Your task to perform on an android device: turn off picture-in-picture Image 0: 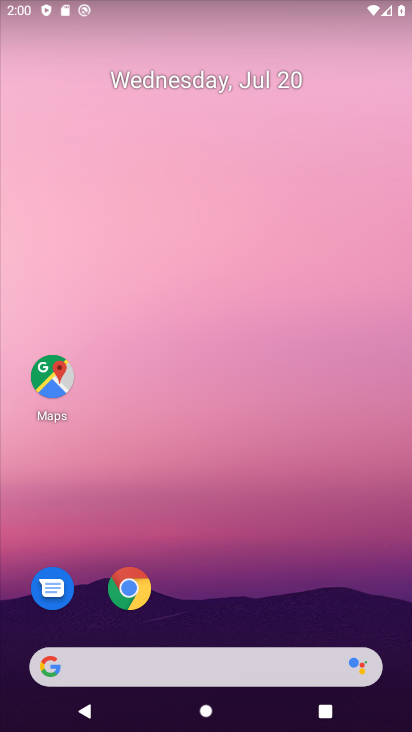
Step 0: click (124, 15)
Your task to perform on an android device: turn off picture-in-picture Image 1: 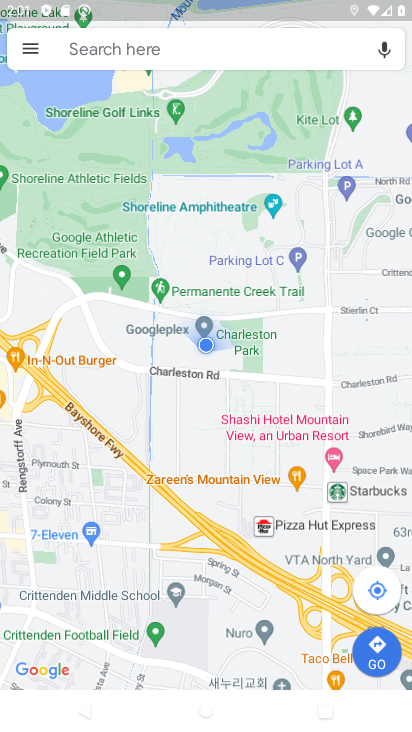
Step 1: press back button
Your task to perform on an android device: turn off picture-in-picture Image 2: 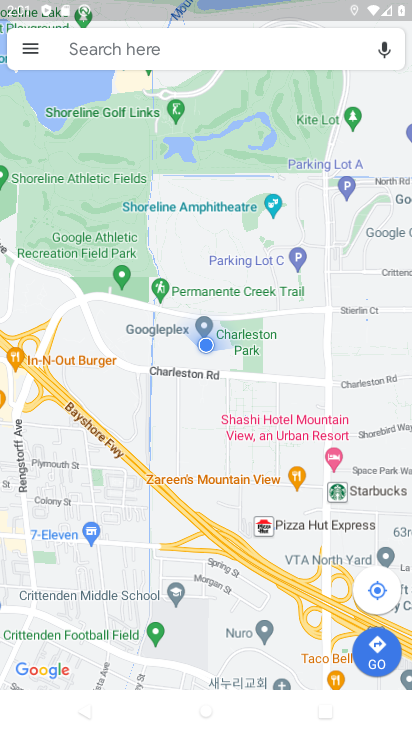
Step 2: press back button
Your task to perform on an android device: turn off picture-in-picture Image 3: 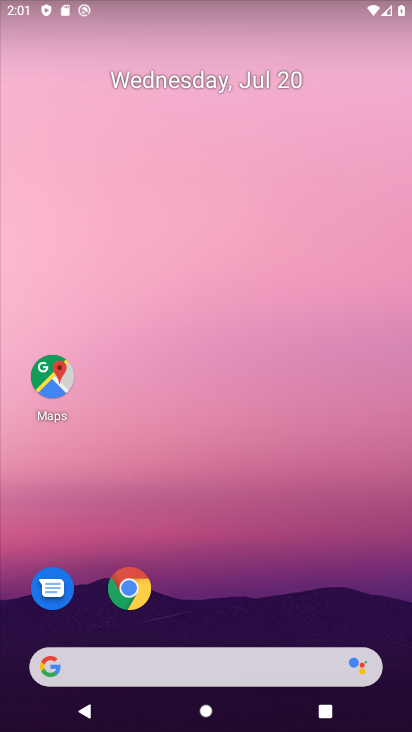
Step 3: drag from (184, 493) to (76, 93)
Your task to perform on an android device: turn off picture-in-picture Image 4: 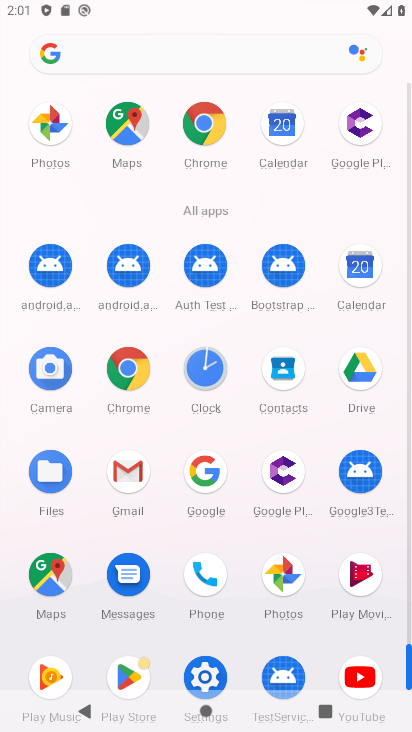
Step 4: click (135, 371)
Your task to perform on an android device: turn off picture-in-picture Image 5: 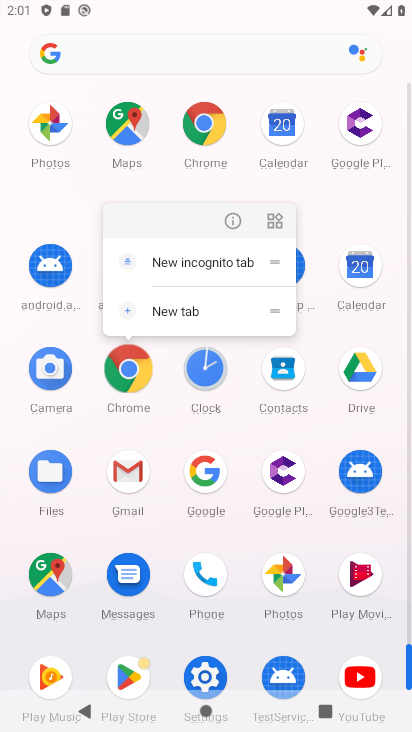
Step 5: click (217, 220)
Your task to perform on an android device: turn off picture-in-picture Image 6: 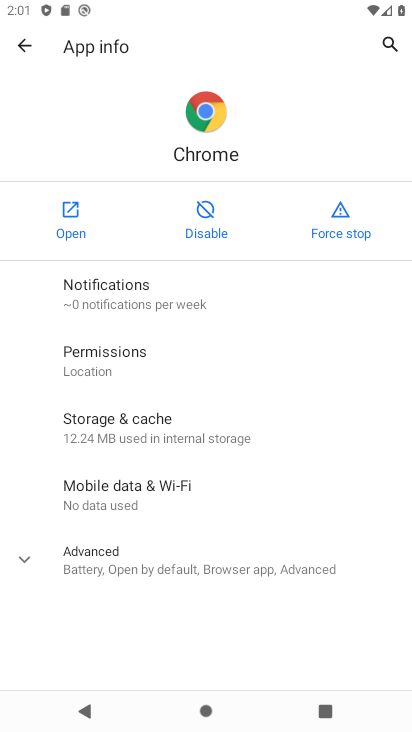
Step 6: click (97, 555)
Your task to perform on an android device: turn off picture-in-picture Image 7: 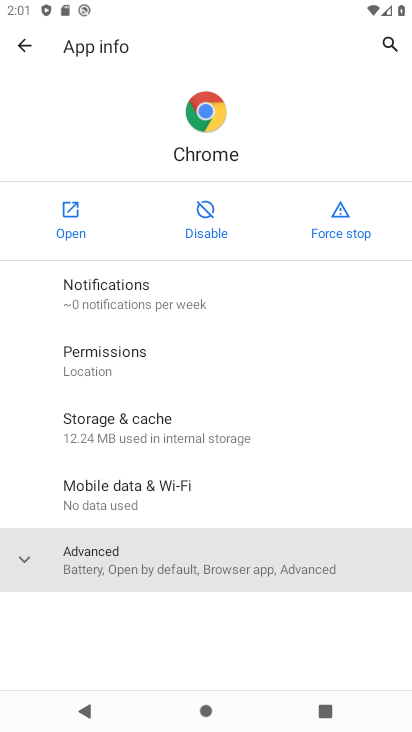
Step 7: click (97, 555)
Your task to perform on an android device: turn off picture-in-picture Image 8: 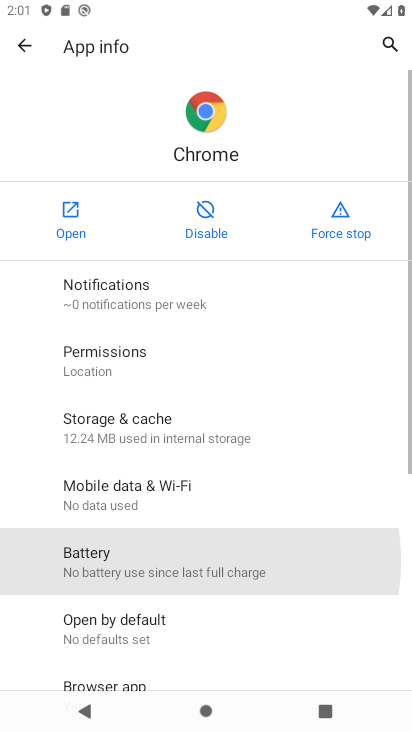
Step 8: click (97, 556)
Your task to perform on an android device: turn off picture-in-picture Image 9: 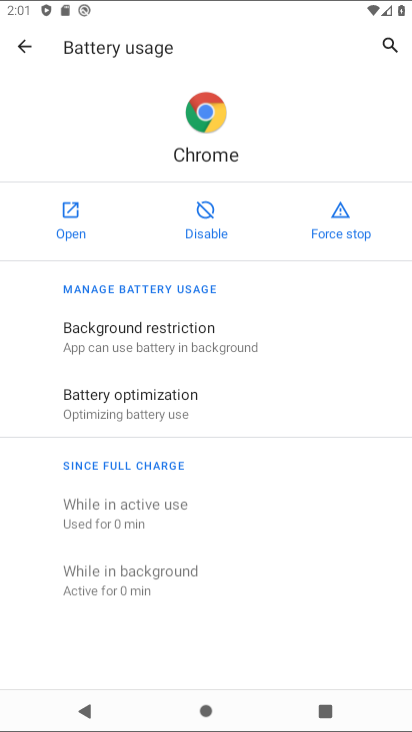
Step 9: drag from (148, 589) to (84, 266)
Your task to perform on an android device: turn off picture-in-picture Image 10: 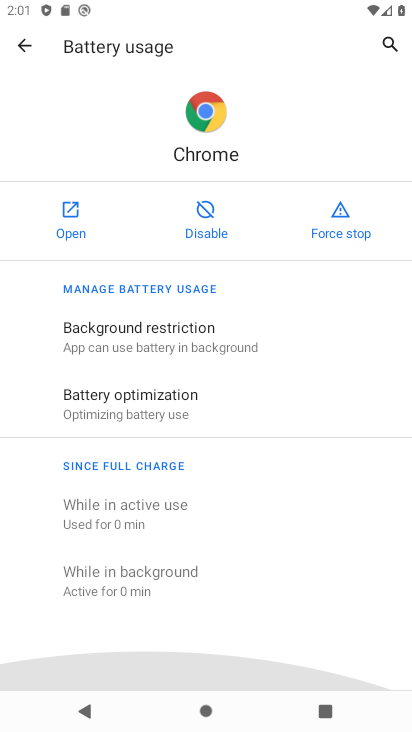
Step 10: drag from (138, 551) to (112, 427)
Your task to perform on an android device: turn off picture-in-picture Image 11: 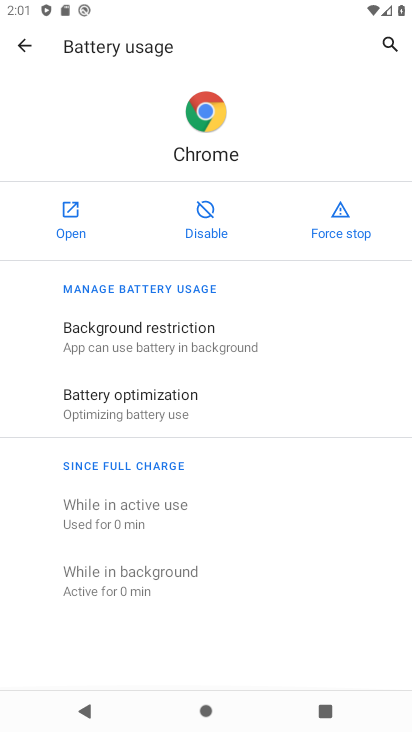
Step 11: drag from (120, 523) to (112, 310)
Your task to perform on an android device: turn off picture-in-picture Image 12: 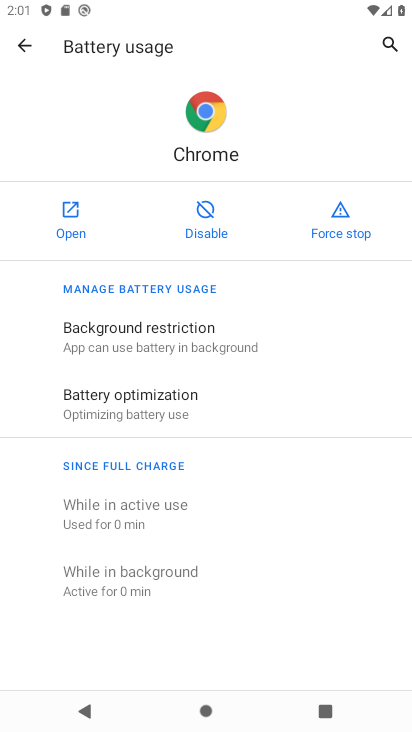
Step 12: click (25, 41)
Your task to perform on an android device: turn off picture-in-picture Image 13: 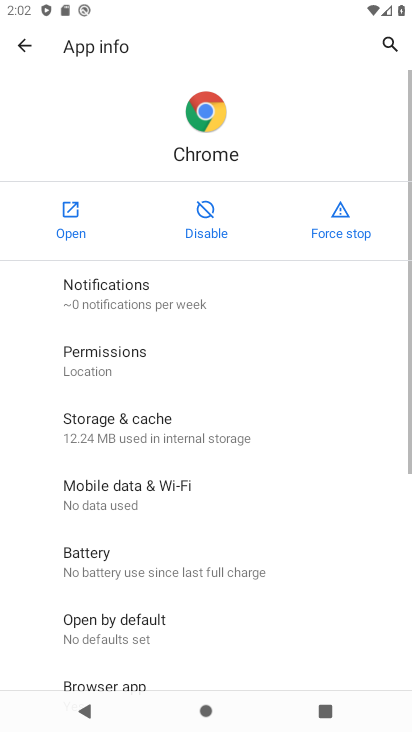
Step 13: drag from (83, 510) to (16, 176)
Your task to perform on an android device: turn off picture-in-picture Image 14: 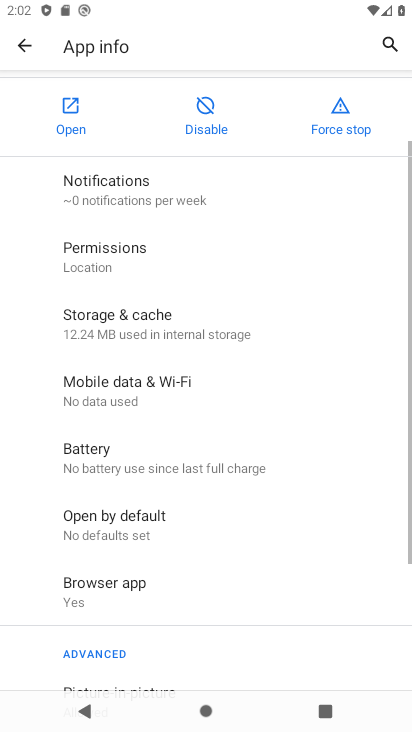
Step 14: drag from (115, 478) to (50, 81)
Your task to perform on an android device: turn off picture-in-picture Image 15: 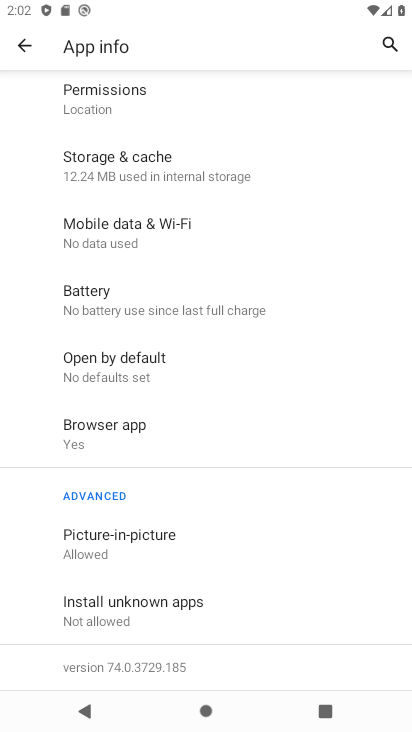
Step 15: click (96, 541)
Your task to perform on an android device: turn off picture-in-picture Image 16: 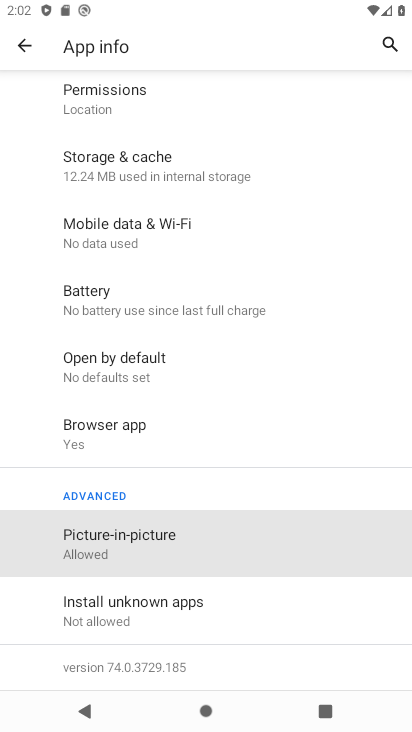
Step 16: click (96, 540)
Your task to perform on an android device: turn off picture-in-picture Image 17: 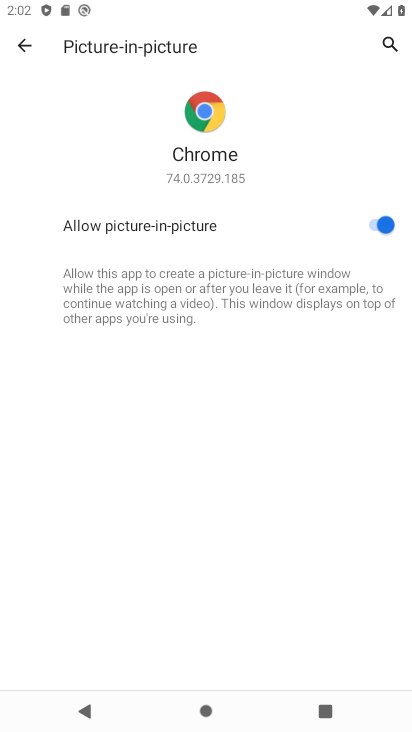
Step 17: click (373, 211)
Your task to perform on an android device: turn off picture-in-picture Image 18: 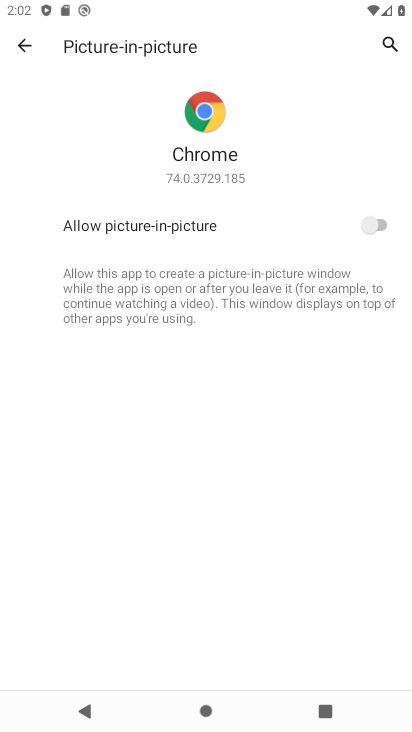
Step 18: task complete